Your task to perform on an android device: turn on the 24-hour format for clock Image 0: 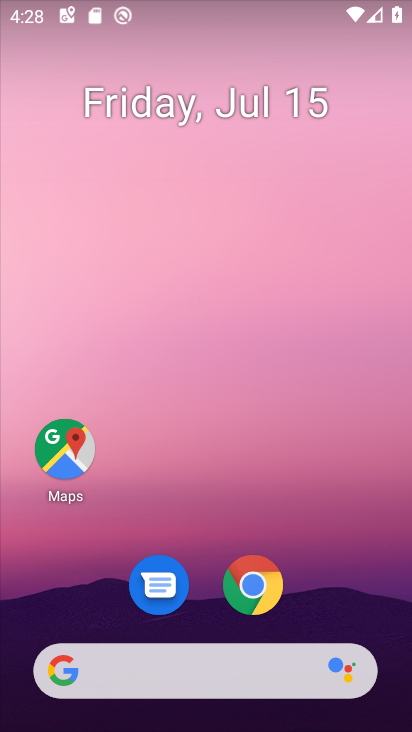
Step 0: drag from (255, 525) to (299, 34)
Your task to perform on an android device: turn on the 24-hour format for clock Image 1: 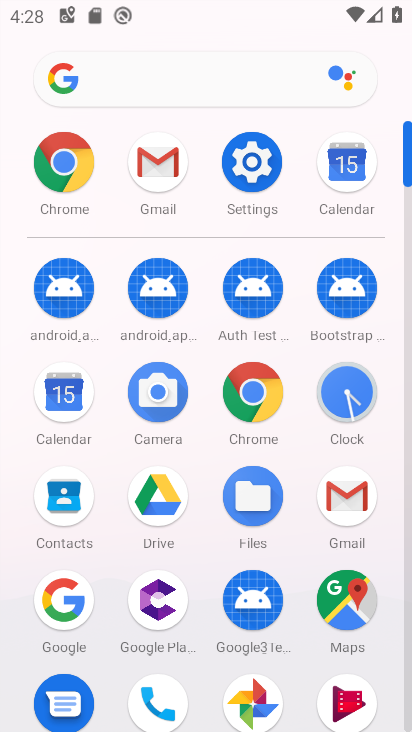
Step 1: click (345, 387)
Your task to perform on an android device: turn on the 24-hour format for clock Image 2: 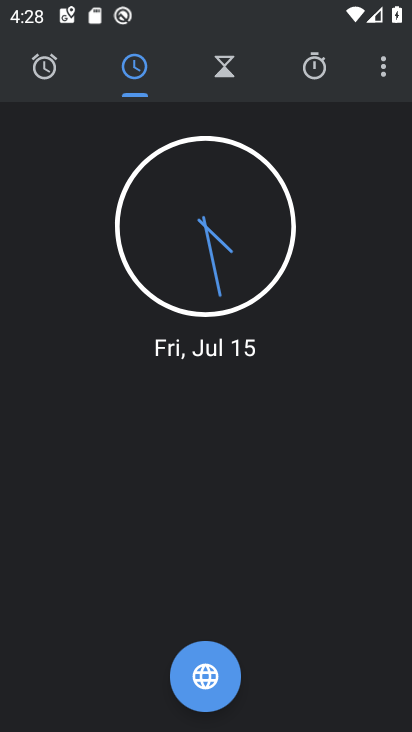
Step 2: click (387, 72)
Your task to perform on an android device: turn on the 24-hour format for clock Image 3: 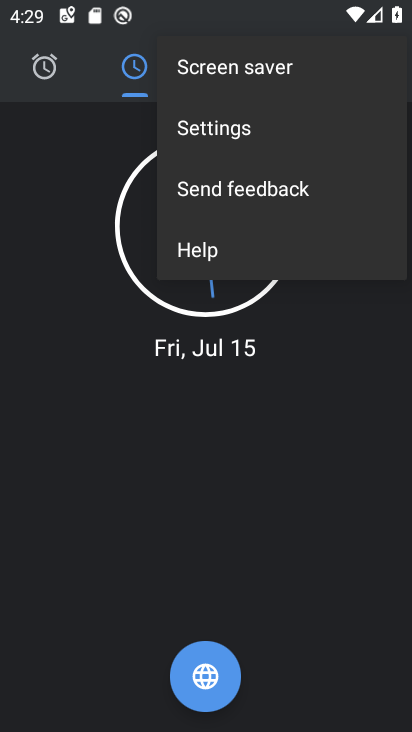
Step 3: click (267, 128)
Your task to perform on an android device: turn on the 24-hour format for clock Image 4: 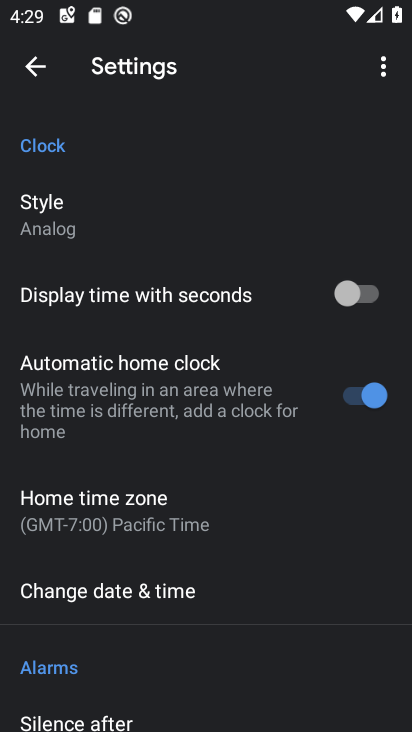
Step 4: click (243, 614)
Your task to perform on an android device: turn on the 24-hour format for clock Image 5: 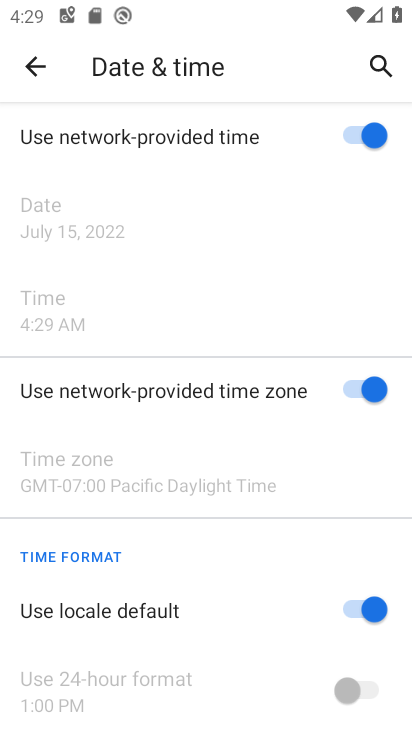
Step 5: click (351, 606)
Your task to perform on an android device: turn on the 24-hour format for clock Image 6: 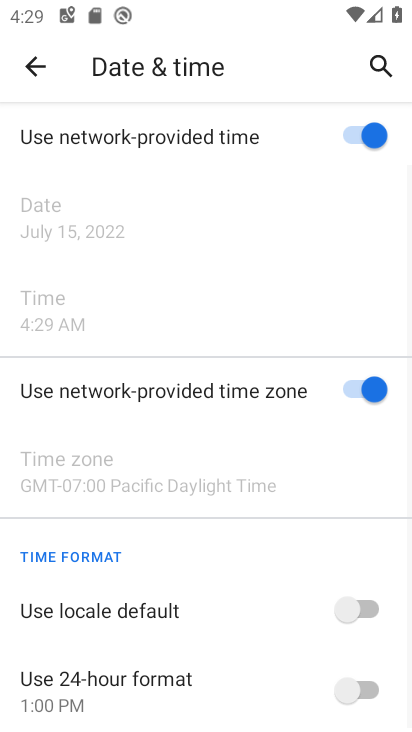
Step 6: click (367, 685)
Your task to perform on an android device: turn on the 24-hour format for clock Image 7: 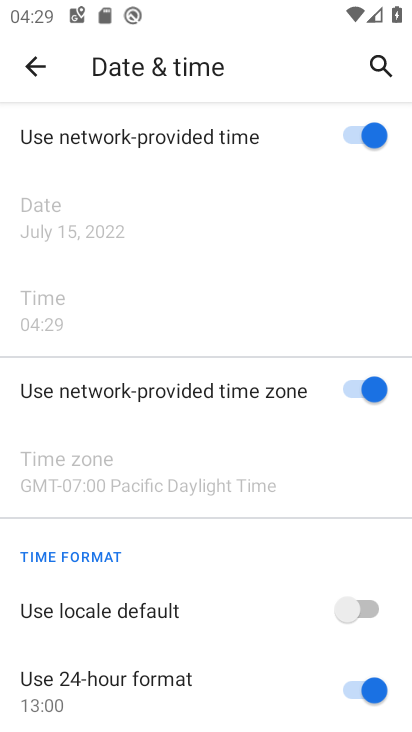
Step 7: task complete